Your task to perform on an android device: See recent photos Image 0: 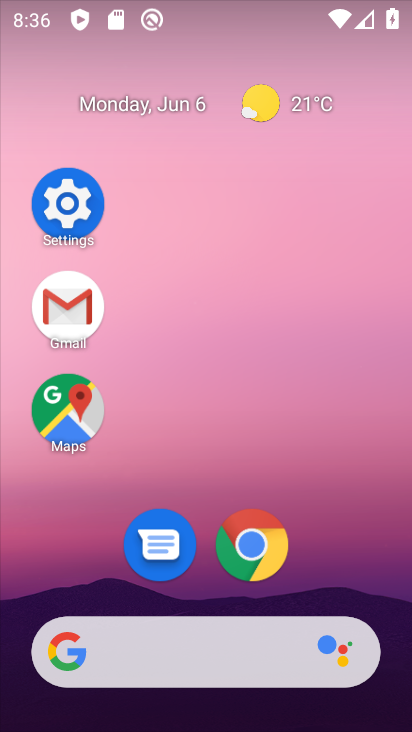
Step 0: drag from (369, 549) to (347, 148)
Your task to perform on an android device: See recent photos Image 1: 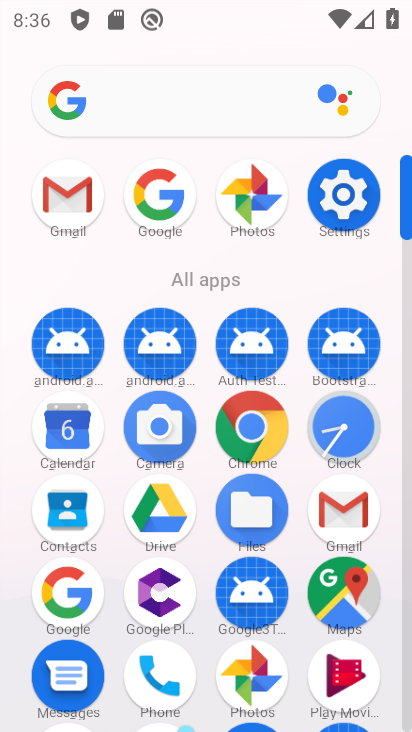
Step 1: click (251, 201)
Your task to perform on an android device: See recent photos Image 2: 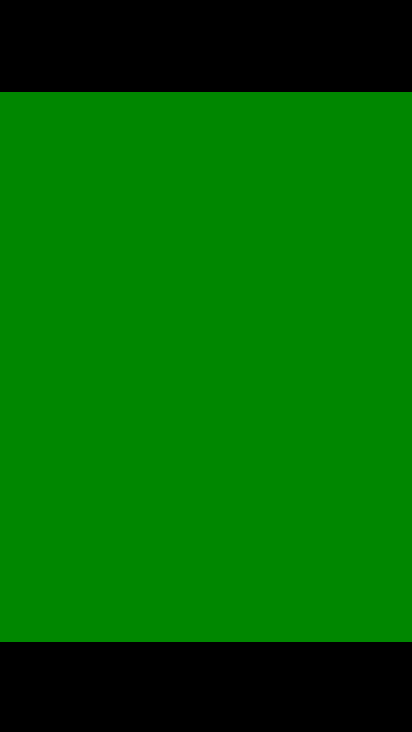
Step 2: press back button
Your task to perform on an android device: See recent photos Image 3: 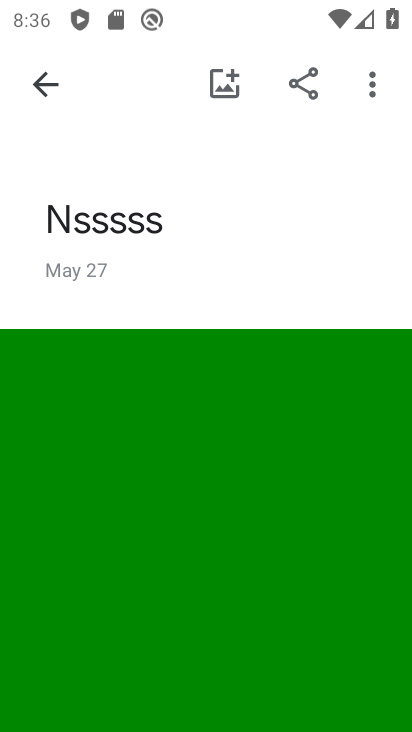
Step 3: click (43, 84)
Your task to perform on an android device: See recent photos Image 4: 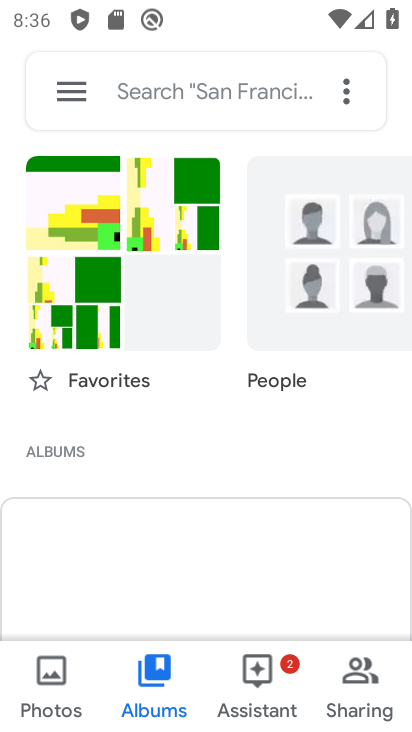
Step 4: click (73, 686)
Your task to perform on an android device: See recent photos Image 5: 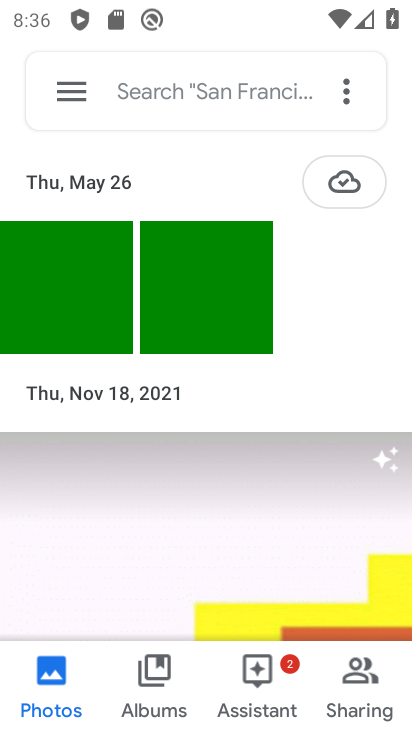
Step 5: task complete